Your task to perform on an android device: Go to notification settings Image 0: 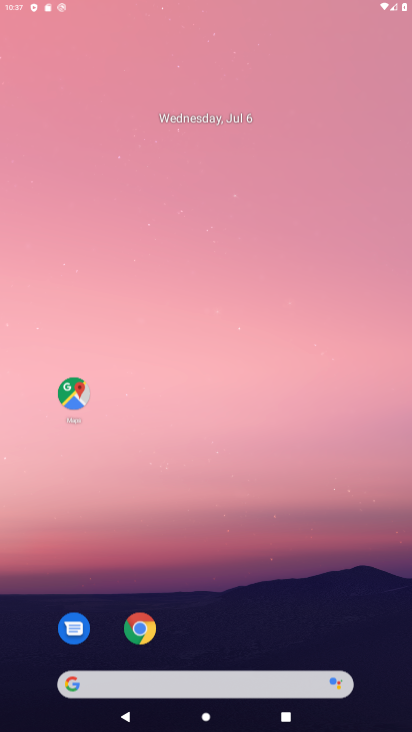
Step 0: press home button
Your task to perform on an android device: Go to notification settings Image 1: 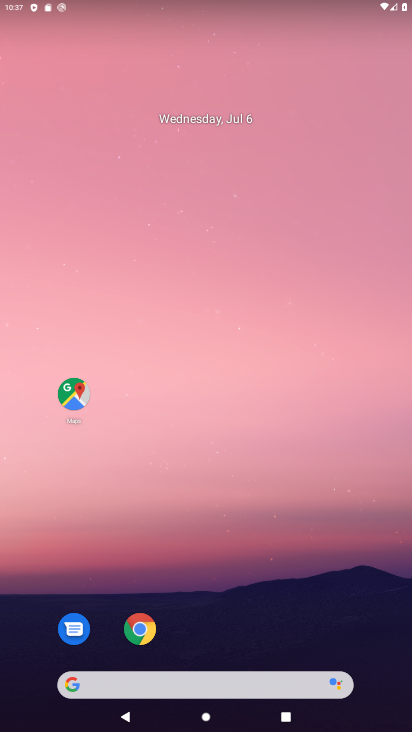
Step 1: drag from (221, 643) to (228, 21)
Your task to perform on an android device: Go to notification settings Image 2: 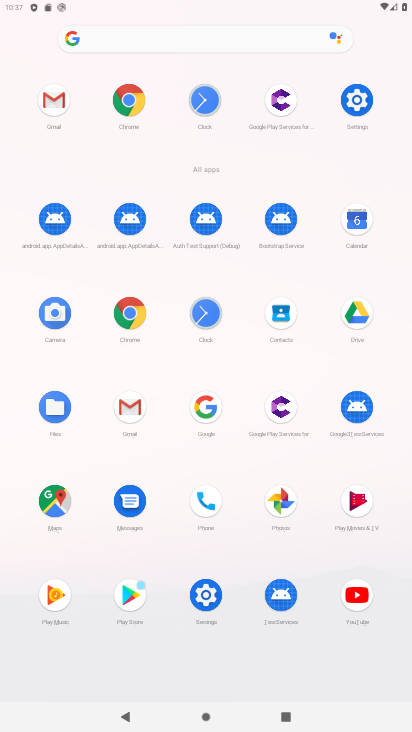
Step 2: click (351, 102)
Your task to perform on an android device: Go to notification settings Image 3: 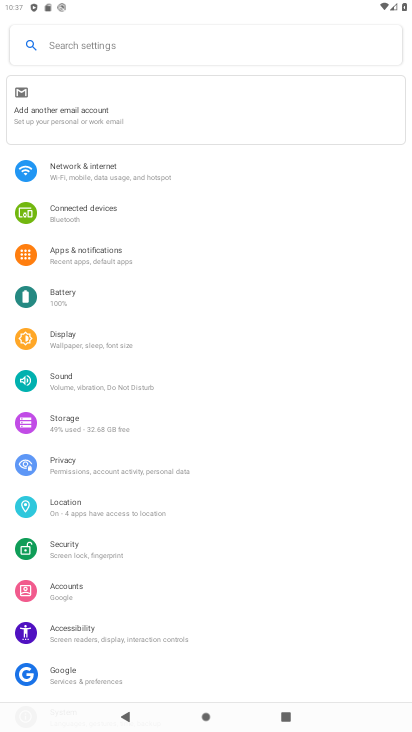
Step 3: click (115, 253)
Your task to perform on an android device: Go to notification settings Image 4: 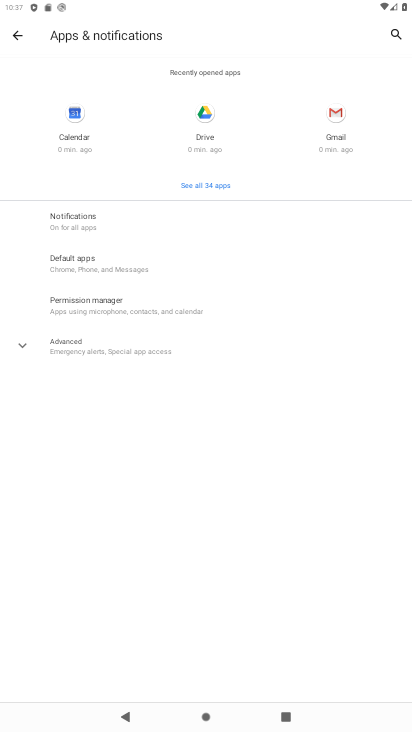
Step 4: click (96, 218)
Your task to perform on an android device: Go to notification settings Image 5: 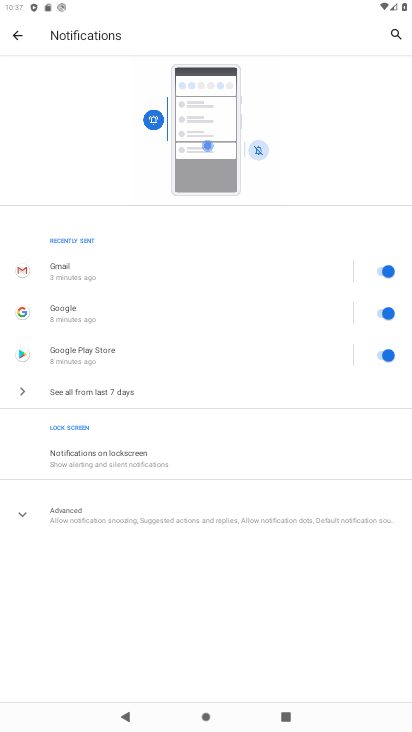
Step 5: click (27, 508)
Your task to perform on an android device: Go to notification settings Image 6: 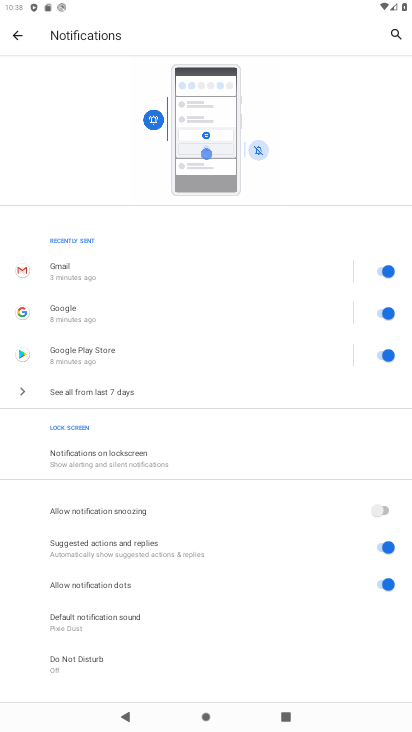
Step 6: drag from (131, 626) to (136, 570)
Your task to perform on an android device: Go to notification settings Image 7: 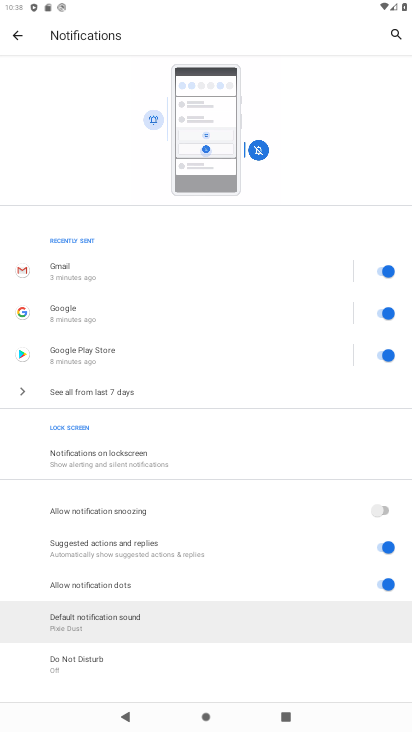
Step 7: drag from (161, 451) to (174, 417)
Your task to perform on an android device: Go to notification settings Image 8: 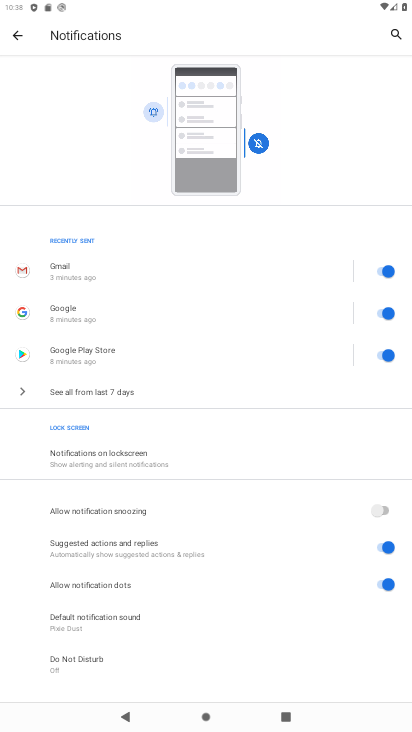
Step 8: click (175, 412)
Your task to perform on an android device: Go to notification settings Image 9: 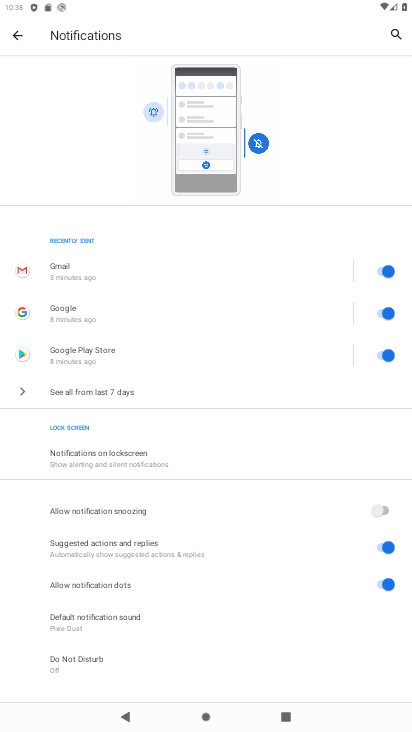
Step 9: task complete